Your task to perform on an android device: What's the weather? Image 0: 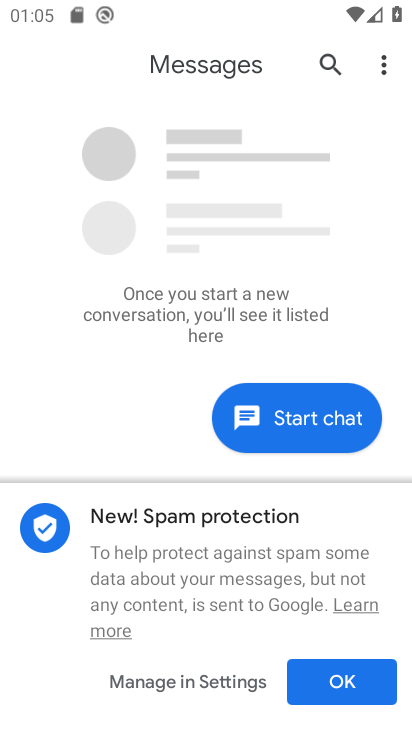
Step 0: press home button
Your task to perform on an android device: What's the weather? Image 1: 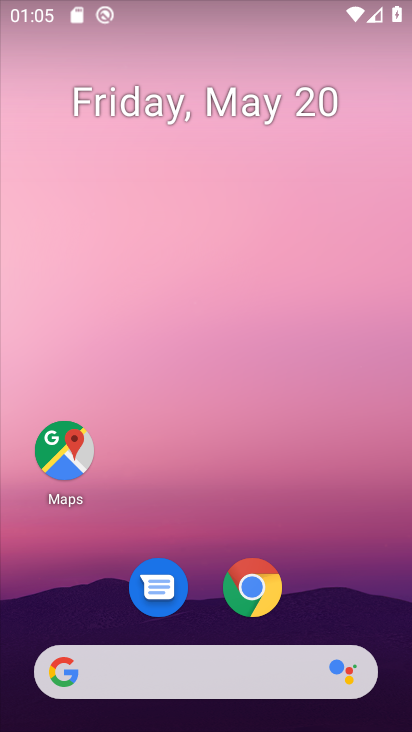
Step 1: click (226, 663)
Your task to perform on an android device: What's the weather? Image 2: 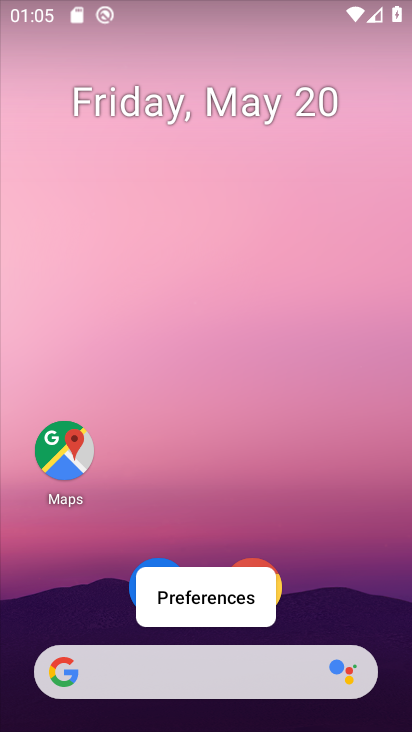
Step 2: click (226, 663)
Your task to perform on an android device: What's the weather? Image 3: 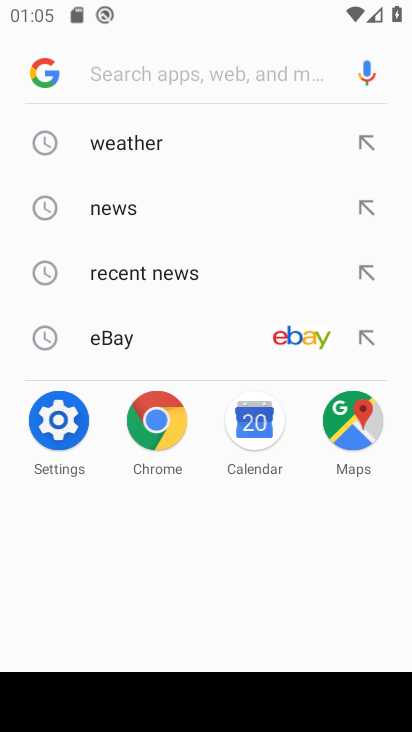
Step 3: click (162, 133)
Your task to perform on an android device: What's the weather? Image 4: 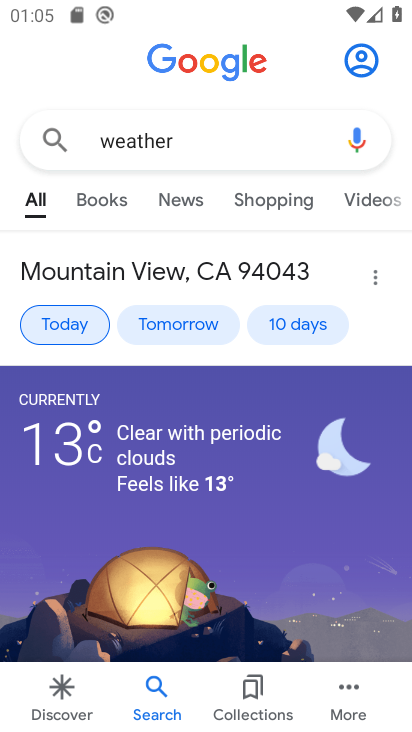
Step 4: task complete